Your task to perform on an android device: Do I have any events today? Image 0: 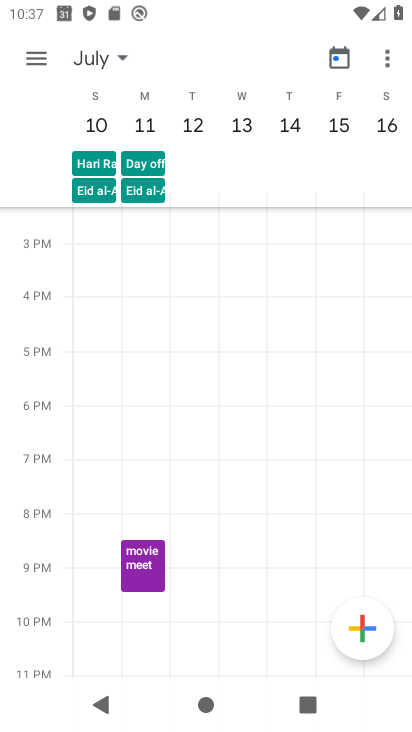
Step 0: click (93, 62)
Your task to perform on an android device: Do I have any events today? Image 1: 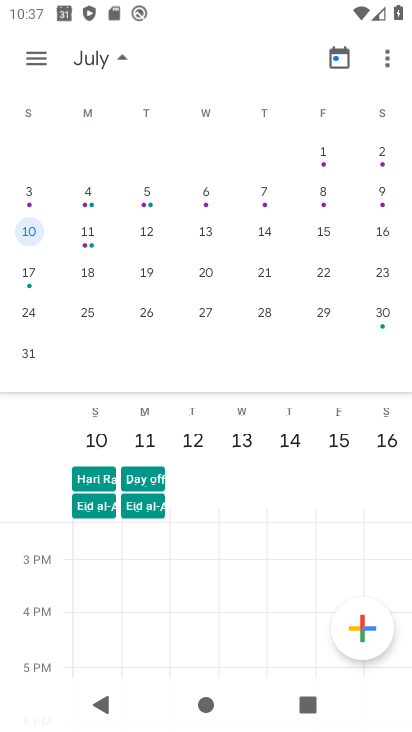
Step 1: drag from (59, 300) to (372, 269)
Your task to perform on an android device: Do I have any events today? Image 2: 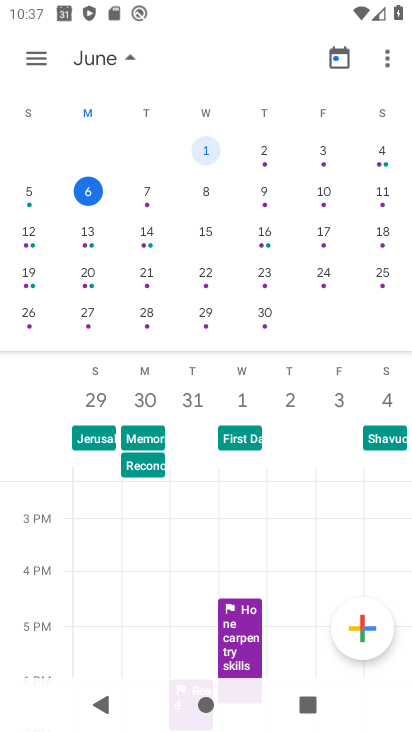
Step 2: click (79, 190)
Your task to perform on an android device: Do I have any events today? Image 3: 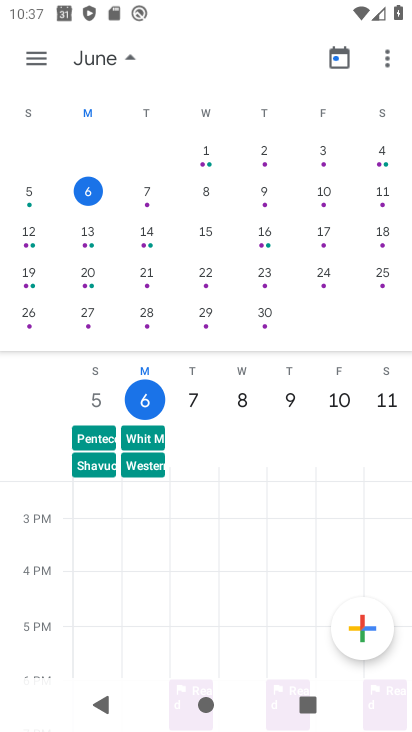
Step 3: drag from (140, 426) to (163, 170)
Your task to perform on an android device: Do I have any events today? Image 4: 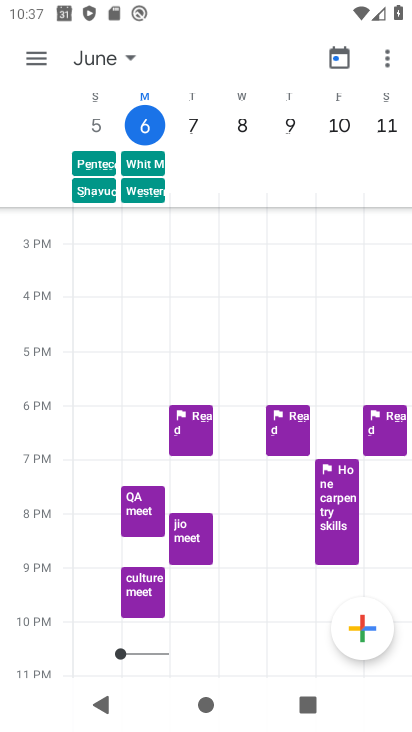
Step 4: click (147, 129)
Your task to perform on an android device: Do I have any events today? Image 5: 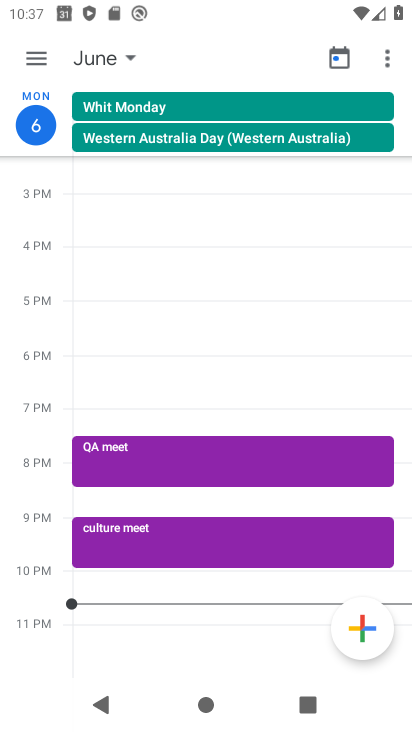
Step 5: task complete